Your task to perform on an android device: stop showing notifications on the lock screen Image 0: 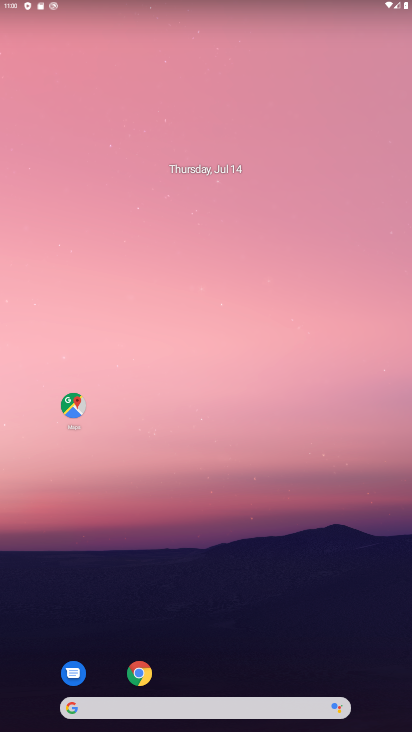
Step 0: drag from (287, 670) to (274, 0)
Your task to perform on an android device: stop showing notifications on the lock screen Image 1: 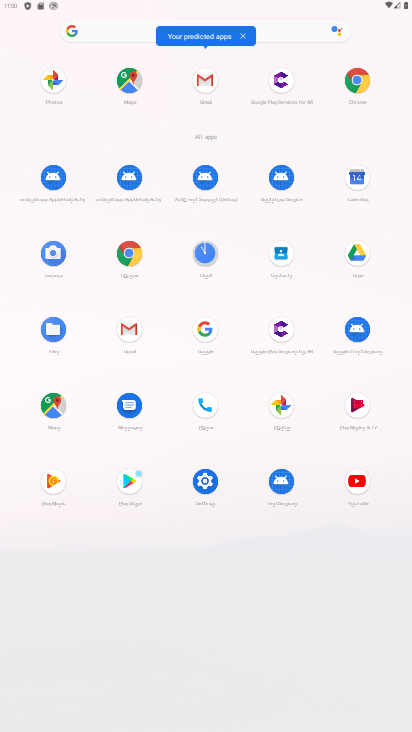
Step 1: click (206, 482)
Your task to perform on an android device: stop showing notifications on the lock screen Image 2: 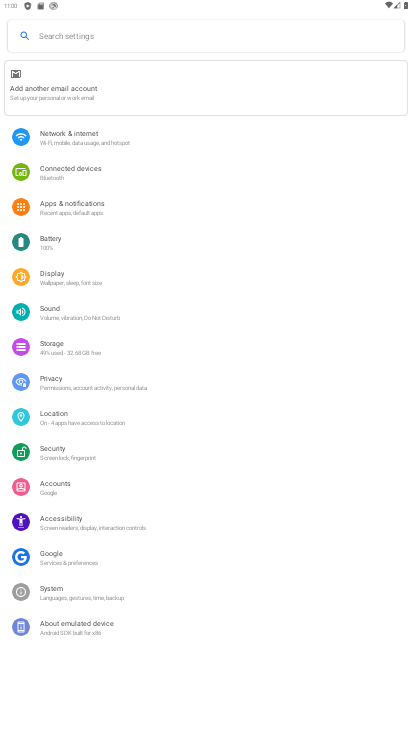
Step 2: click (88, 202)
Your task to perform on an android device: stop showing notifications on the lock screen Image 3: 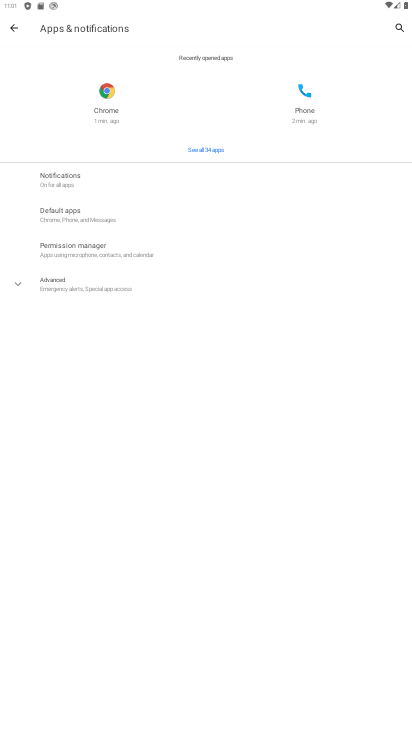
Step 3: click (73, 175)
Your task to perform on an android device: stop showing notifications on the lock screen Image 4: 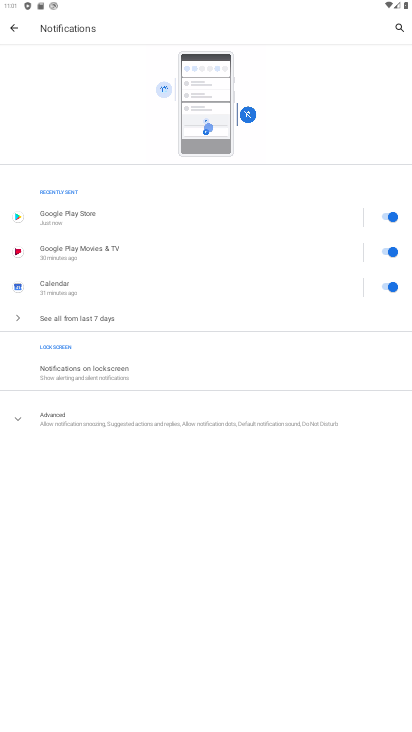
Step 4: click (82, 369)
Your task to perform on an android device: stop showing notifications on the lock screen Image 5: 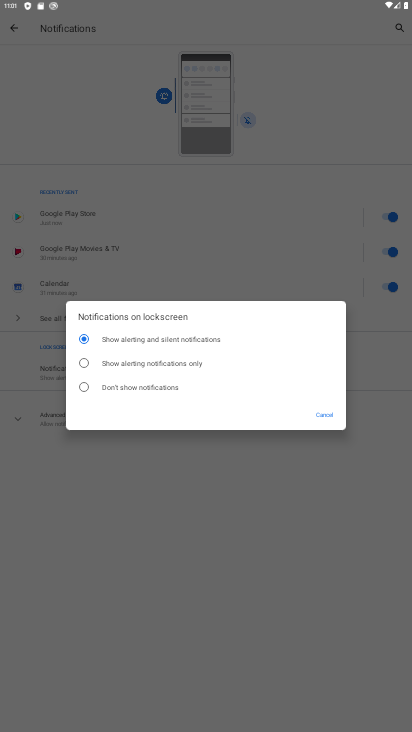
Step 5: click (112, 387)
Your task to perform on an android device: stop showing notifications on the lock screen Image 6: 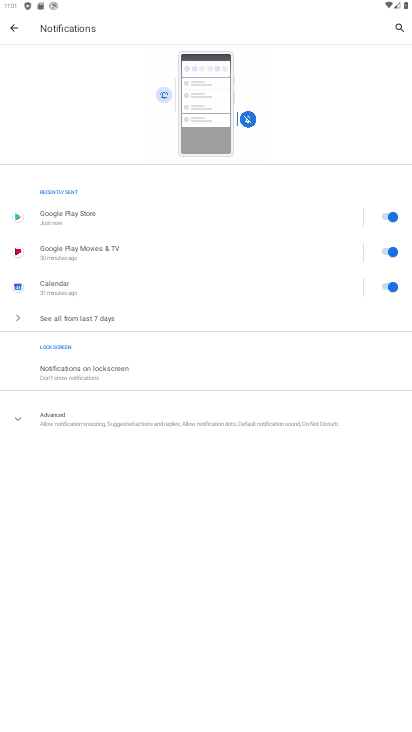
Step 6: task complete